Your task to perform on an android device: Open battery settings Image 0: 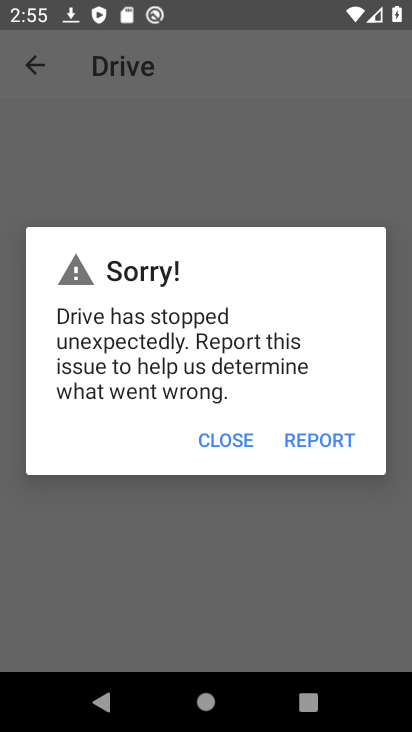
Step 0: press home button
Your task to perform on an android device: Open battery settings Image 1: 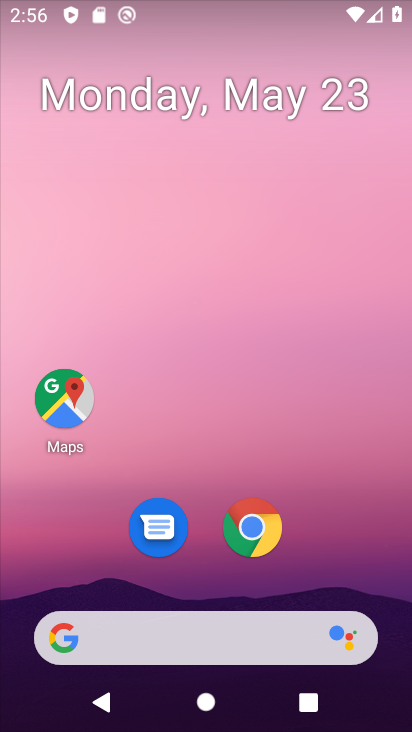
Step 1: drag from (273, 658) to (201, 28)
Your task to perform on an android device: Open battery settings Image 2: 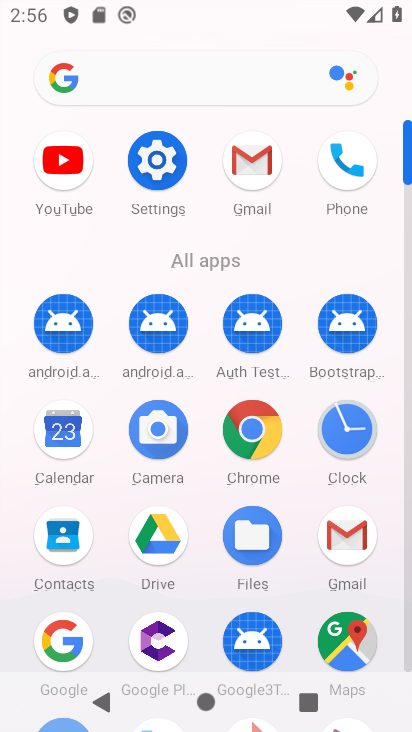
Step 2: click (164, 160)
Your task to perform on an android device: Open battery settings Image 3: 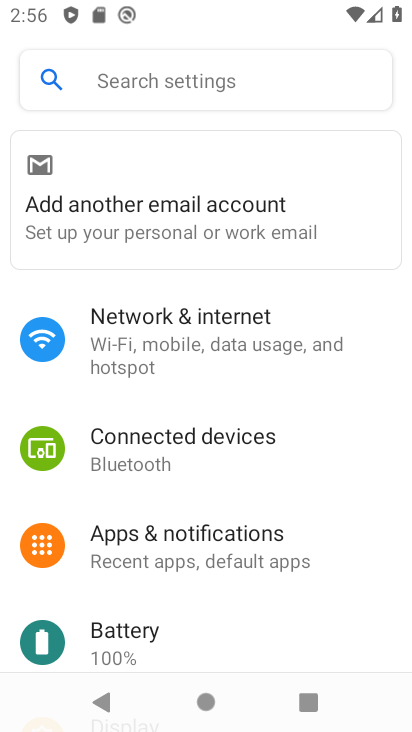
Step 3: click (172, 630)
Your task to perform on an android device: Open battery settings Image 4: 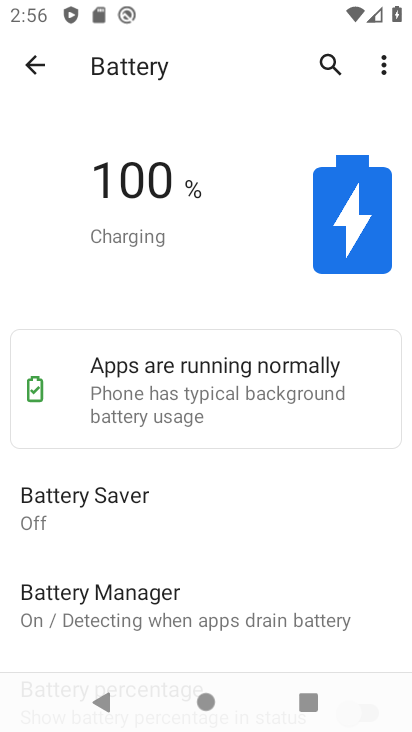
Step 4: task complete